Your task to perform on an android device: turn on javascript in the chrome app Image 0: 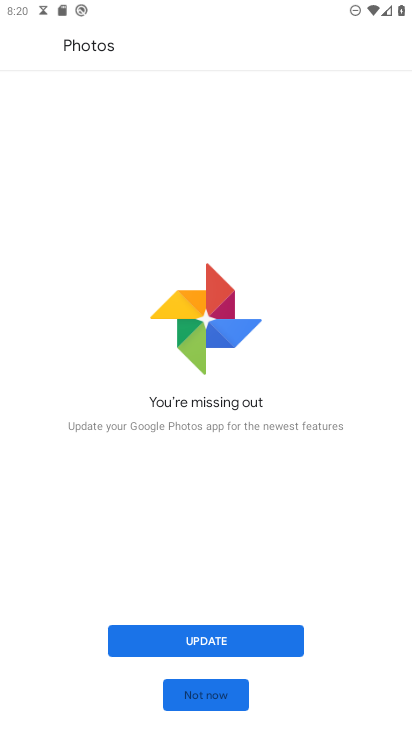
Step 0: press home button
Your task to perform on an android device: turn on javascript in the chrome app Image 1: 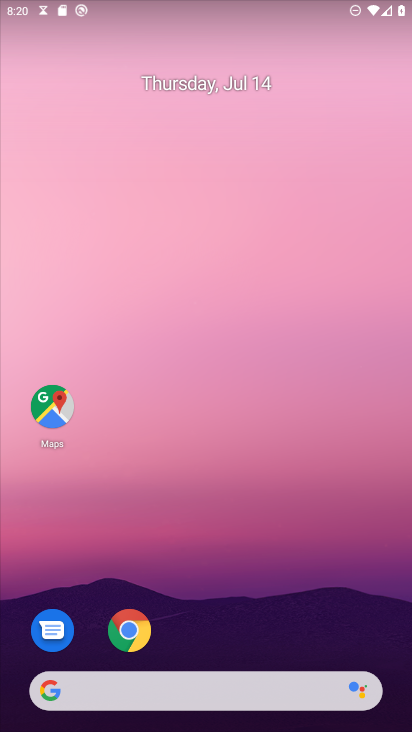
Step 1: click (127, 624)
Your task to perform on an android device: turn on javascript in the chrome app Image 2: 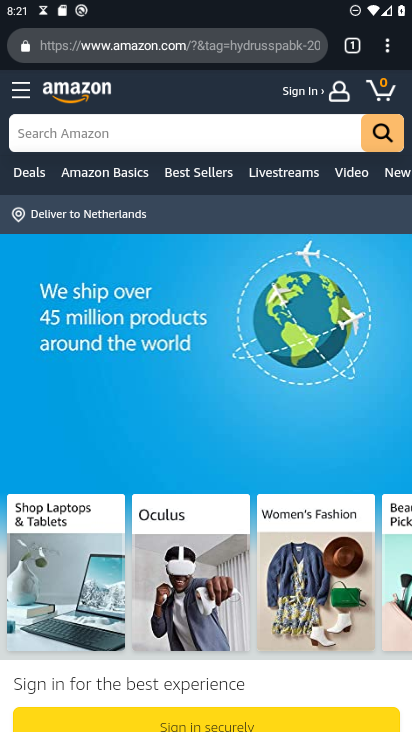
Step 2: click (384, 49)
Your task to perform on an android device: turn on javascript in the chrome app Image 3: 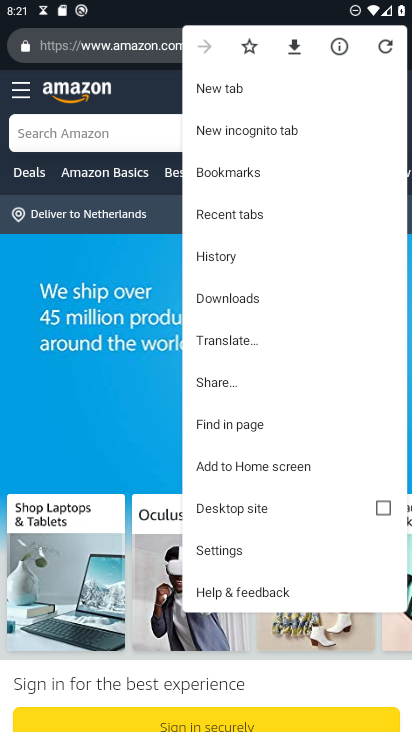
Step 3: click (241, 548)
Your task to perform on an android device: turn on javascript in the chrome app Image 4: 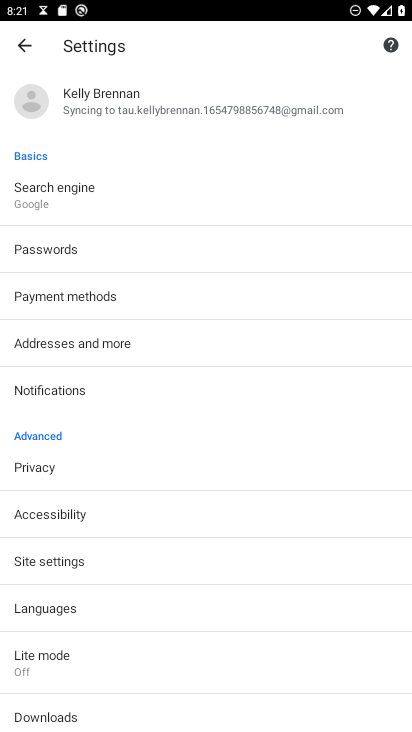
Step 4: click (62, 565)
Your task to perform on an android device: turn on javascript in the chrome app Image 5: 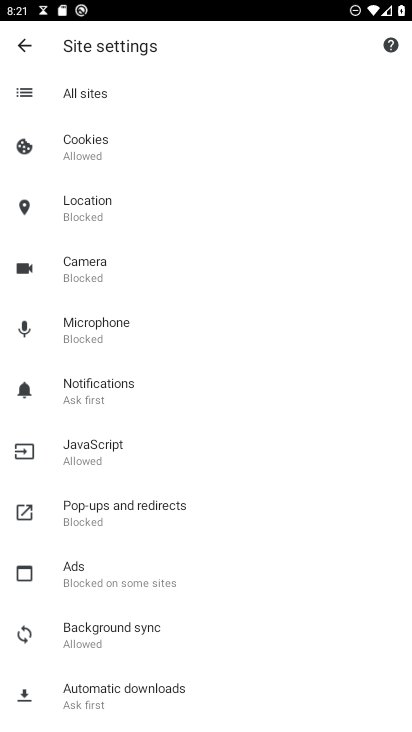
Step 5: click (73, 445)
Your task to perform on an android device: turn on javascript in the chrome app Image 6: 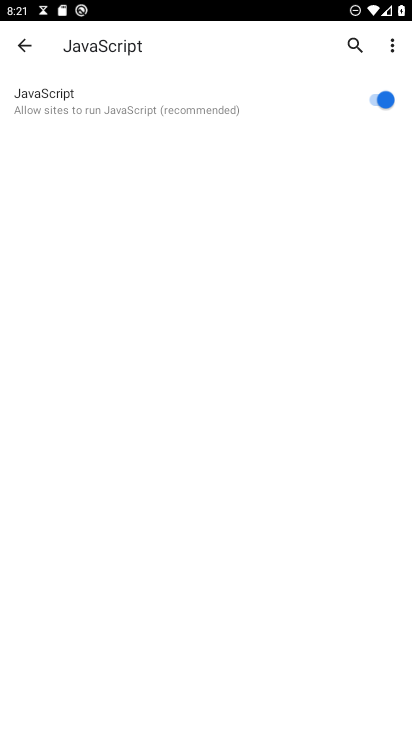
Step 6: task complete